Your task to perform on an android device: Go to internet settings Image 0: 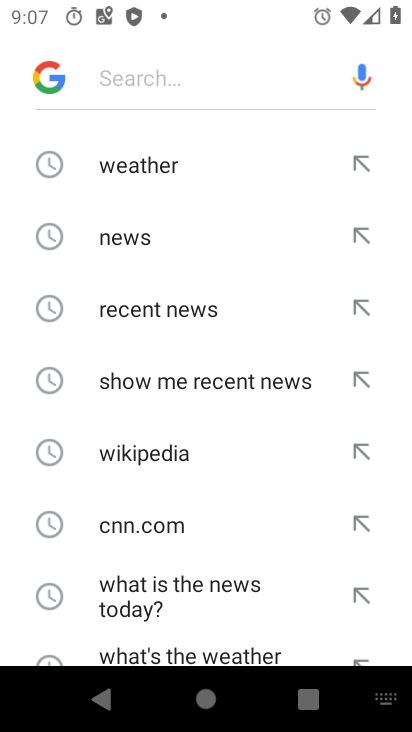
Step 0: press home button
Your task to perform on an android device: Go to internet settings Image 1: 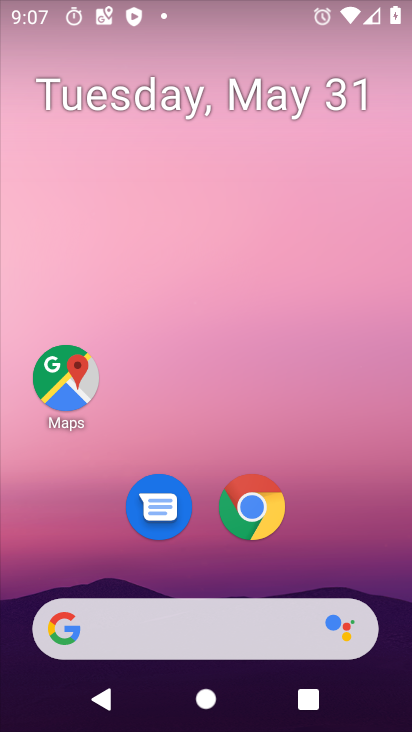
Step 1: drag from (345, 570) to (299, 2)
Your task to perform on an android device: Go to internet settings Image 2: 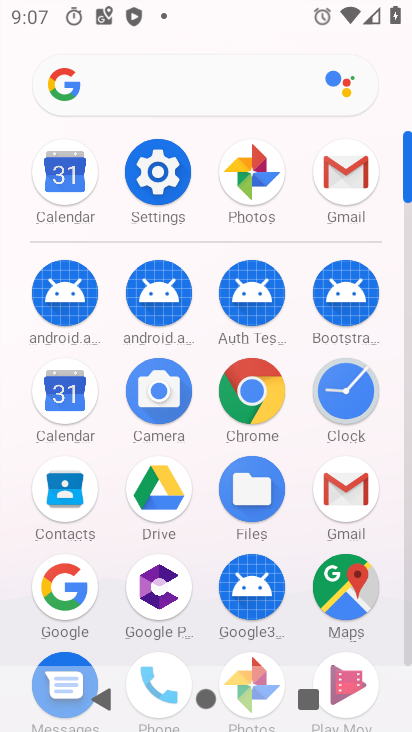
Step 2: click (158, 182)
Your task to perform on an android device: Go to internet settings Image 3: 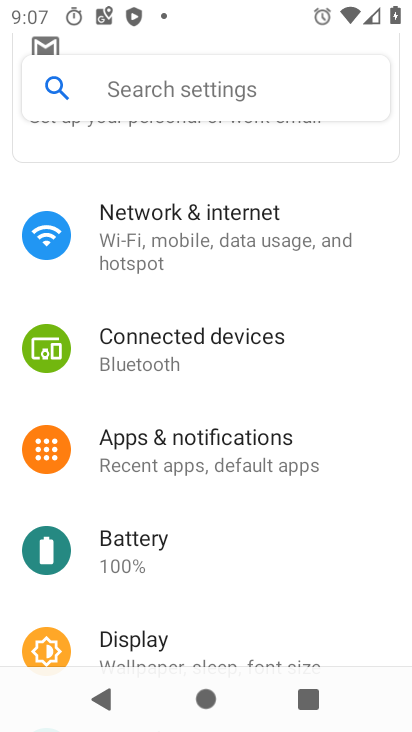
Step 3: click (182, 241)
Your task to perform on an android device: Go to internet settings Image 4: 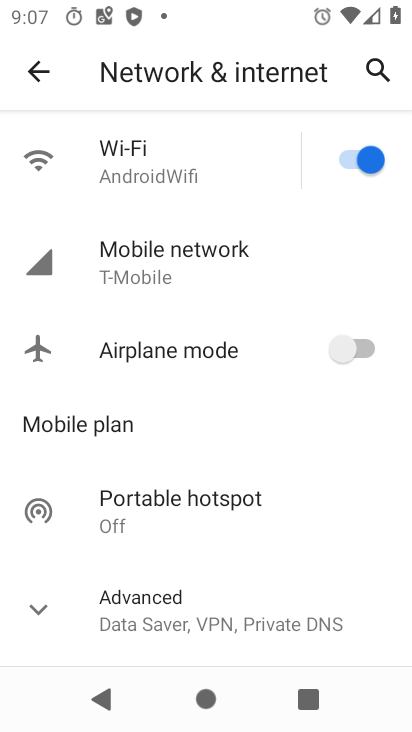
Step 4: task complete